Your task to perform on an android device: open a bookmark in the chrome app Image 0: 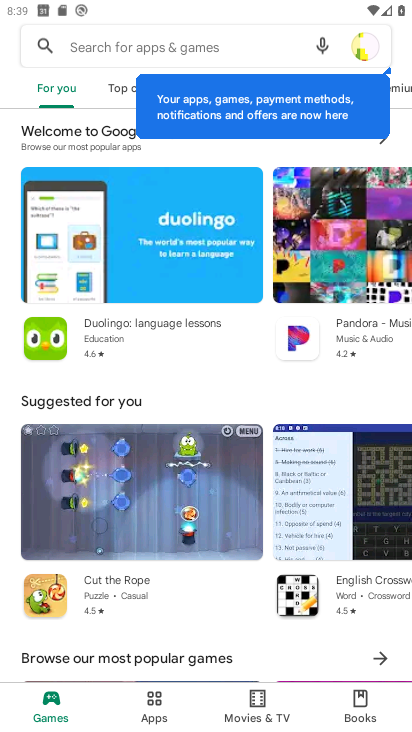
Step 0: press home button
Your task to perform on an android device: open a bookmark in the chrome app Image 1: 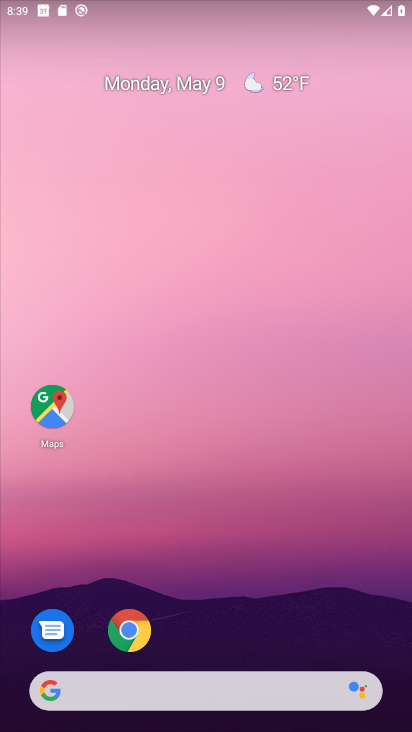
Step 1: click (137, 619)
Your task to perform on an android device: open a bookmark in the chrome app Image 2: 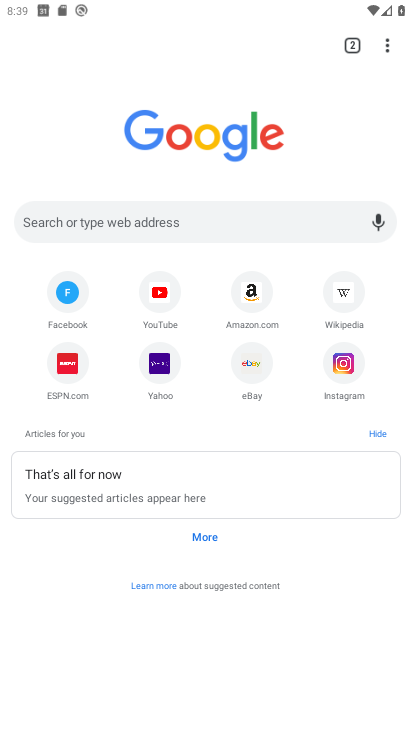
Step 2: click (391, 62)
Your task to perform on an android device: open a bookmark in the chrome app Image 3: 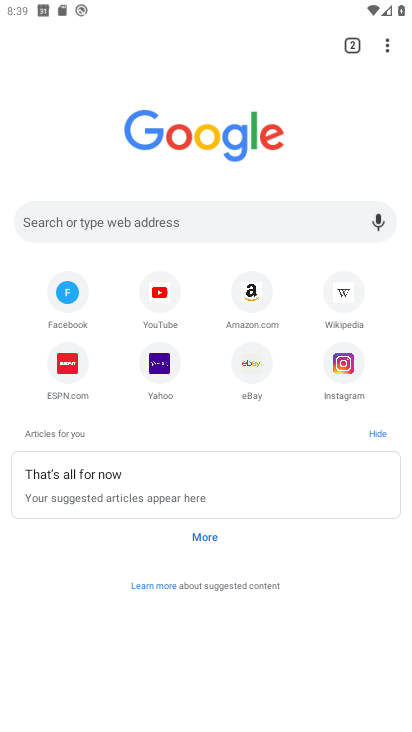
Step 3: click (385, 44)
Your task to perform on an android device: open a bookmark in the chrome app Image 4: 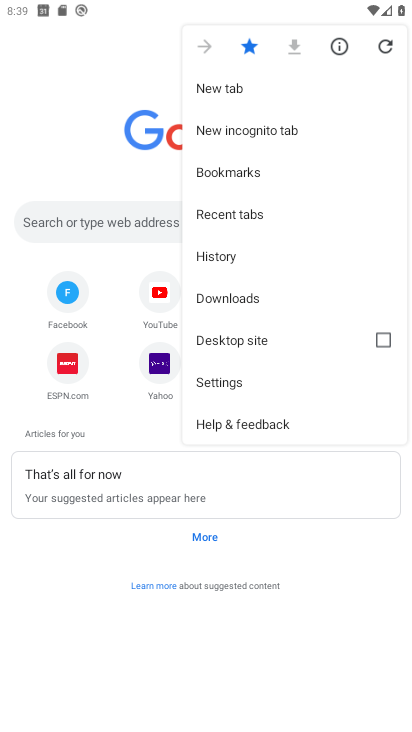
Step 4: click (239, 178)
Your task to perform on an android device: open a bookmark in the chrome app Image 5: 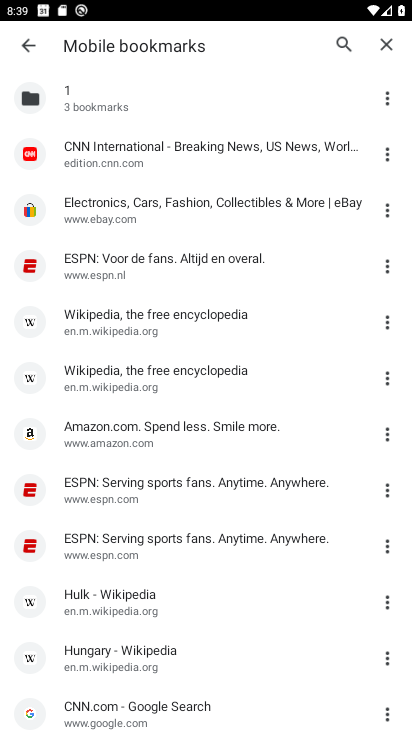
Step 5: click (143, 480)
Your task to perform on an android device: open a bookmark in the chrome app Image 6: 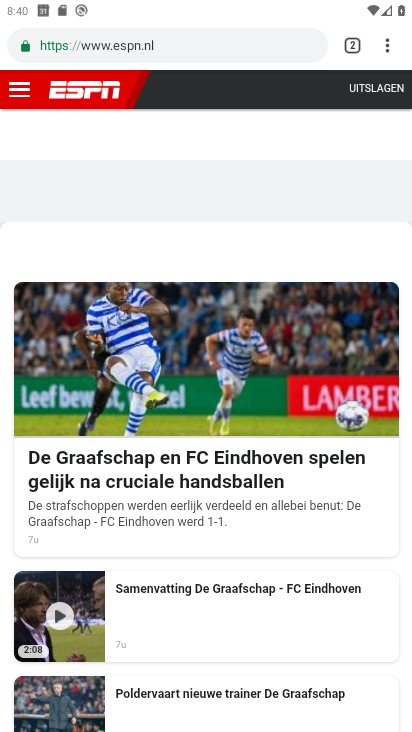
Step 6: task complete